Your task to perform on an android device: open device folders in google photos Image 0: 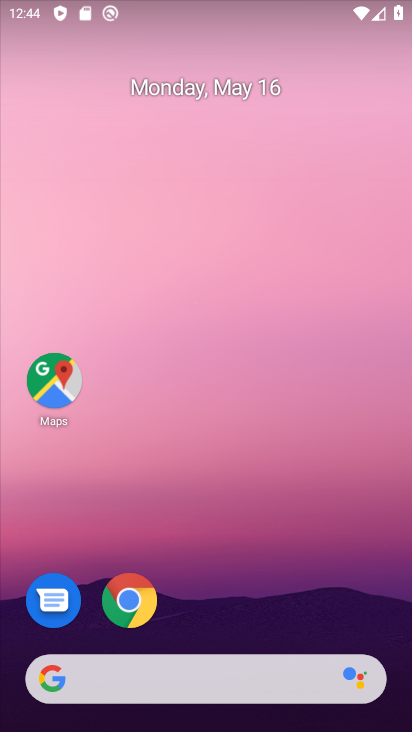
Step 0: drag from (336, 610) to (342, 123)
Your task to perform on an android device: open device folders in google photos Image 1: 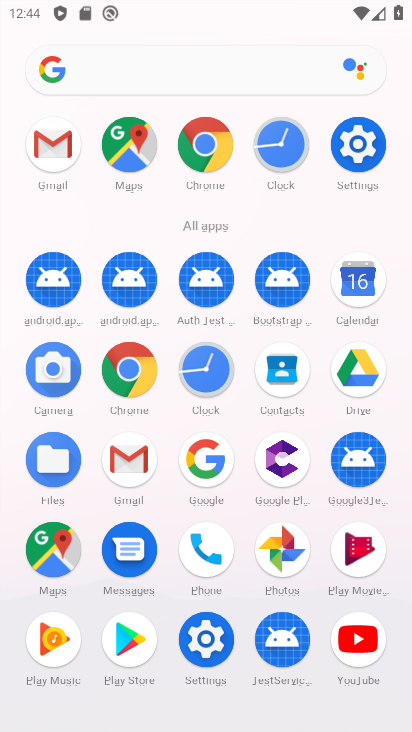
Step 1: click (295, 552)
Your task to perform on an android device: open device folders in google photos Image 2: 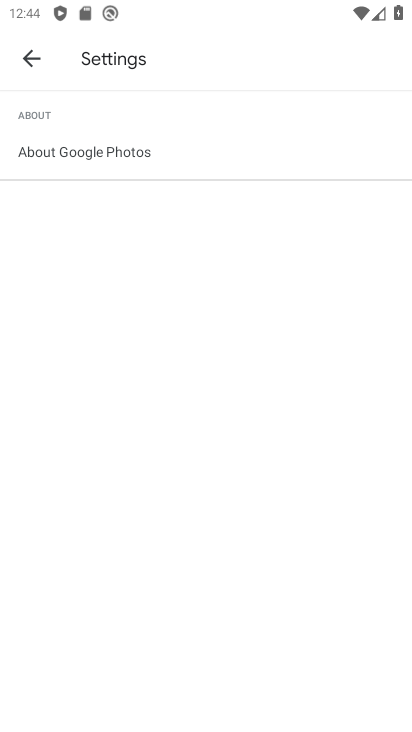
Step 2: click (30, 49)
Your task to perform on an android device: open device folders in google photos Image 3: 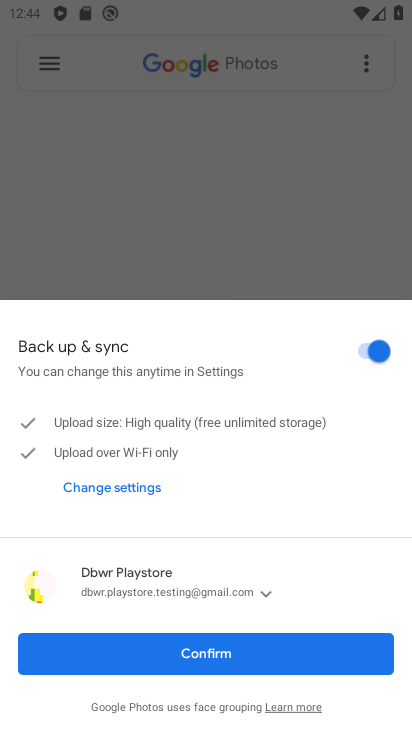
Step 3: click (263, 659)
Your task to perform on an android device: open device folders in google photos Image 4: 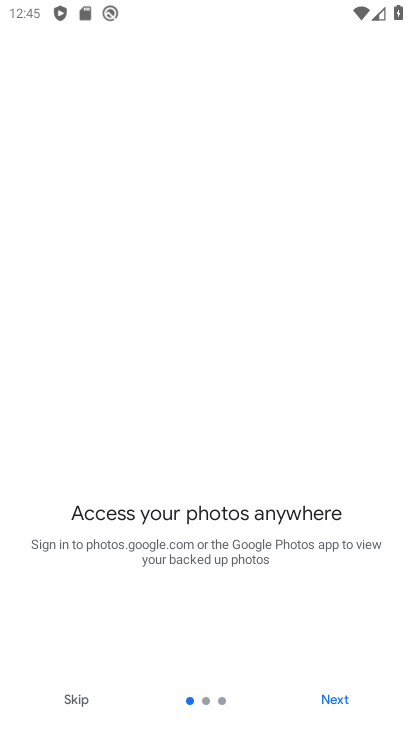
Step 4: click (338, 708)
Your task to perform on an android device: open device folders in google photos Image 5: 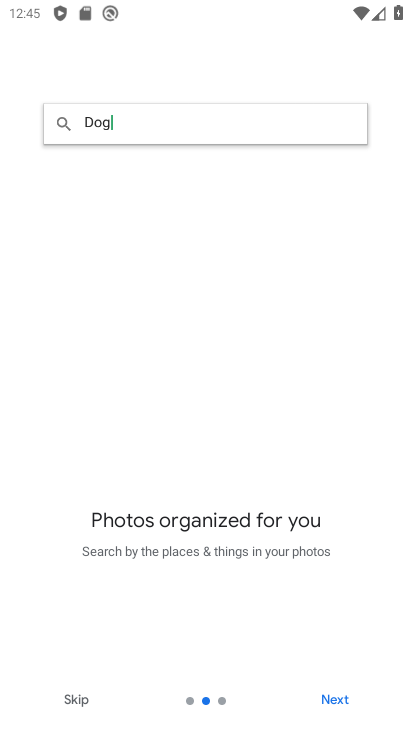
Step 5: click (338, 708)
Your task to perform on an android device: open device folders in google photos Image 6: 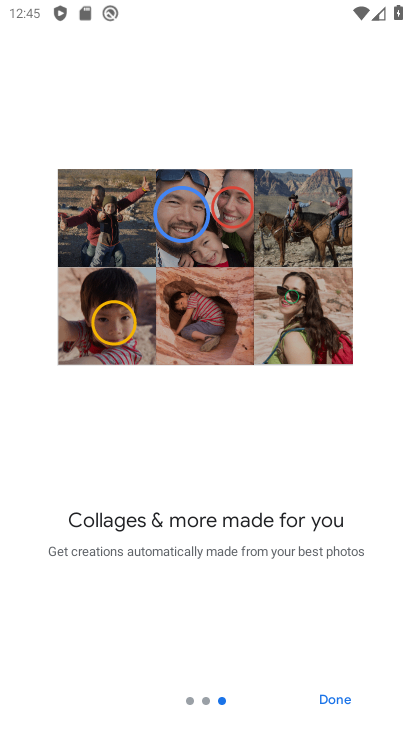
Step 6: click (338, 708)
Your task to perform on an android device: open device folders in google photos Image 7: 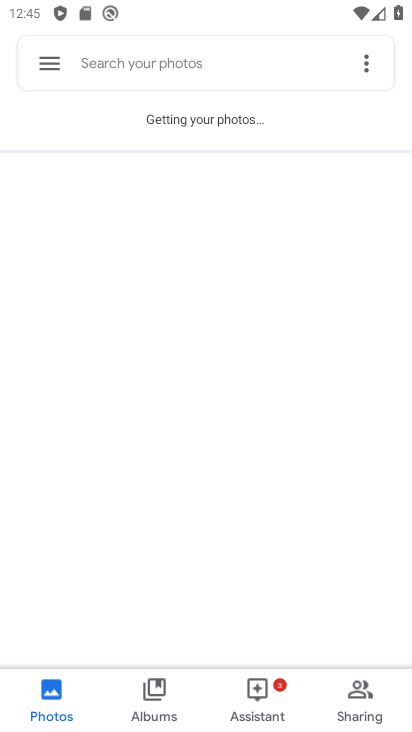
Step 7: click (59, 72)
Your task to perform on an android device: open device folders in google photos Image 8: 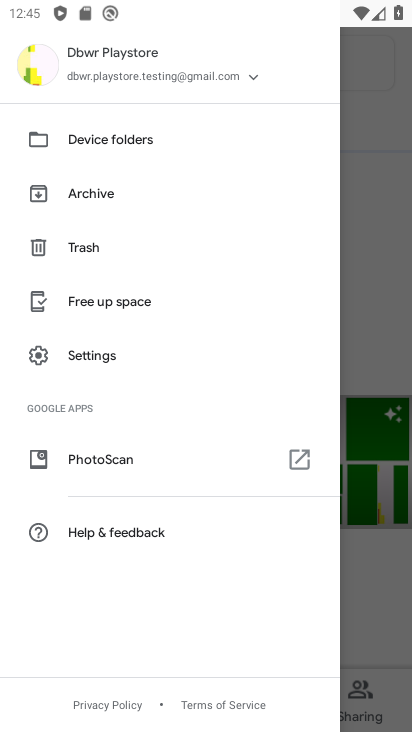
Step 8: click (142, 134)
Your task to perform on an android device: open device folders in google photos Image 9: 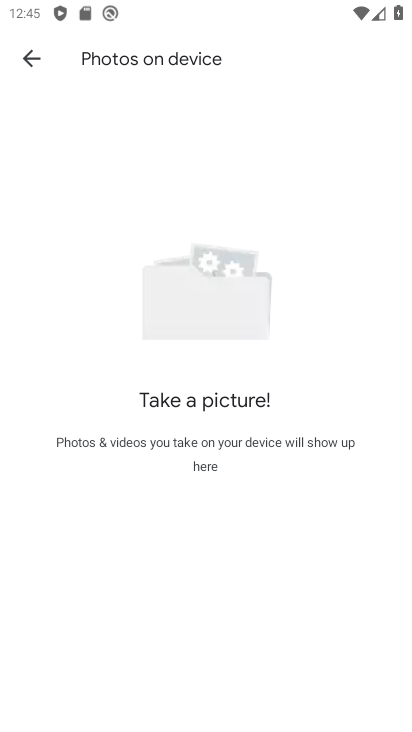
Step 9: task complete